Your task to perform on an android device: delete a single message in the gmail app Image 0: 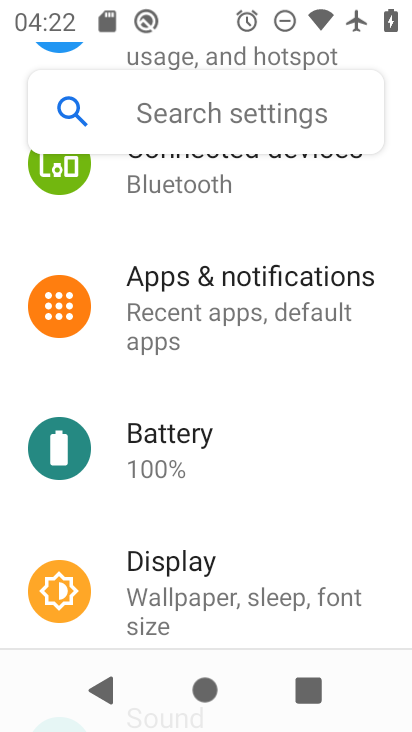
Step 0: press home button
Your task to perform on an android device: delete a single message in the gmail app Image 1: 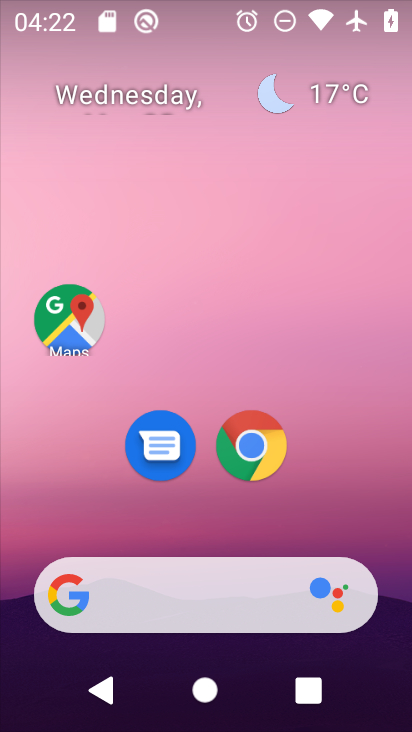
Step 1: drag from (172, 575) to (191, 242)
Your task to perform on an android device: delete a single message in the gmail app Image 2: 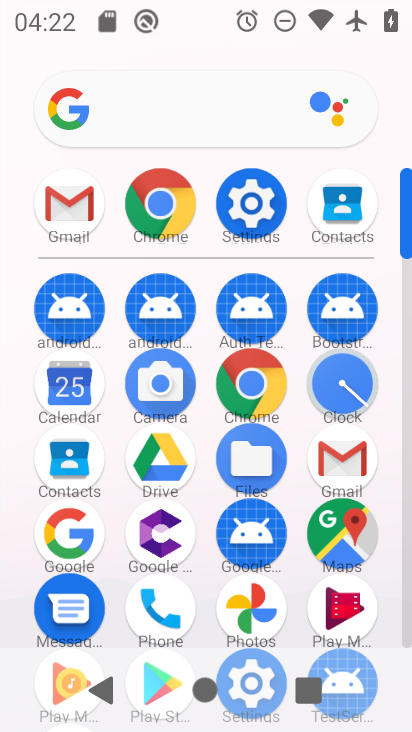
Step 2: click (62, 207)
Your task to perform on an android device: delete a single message in the gmail app Image 3: 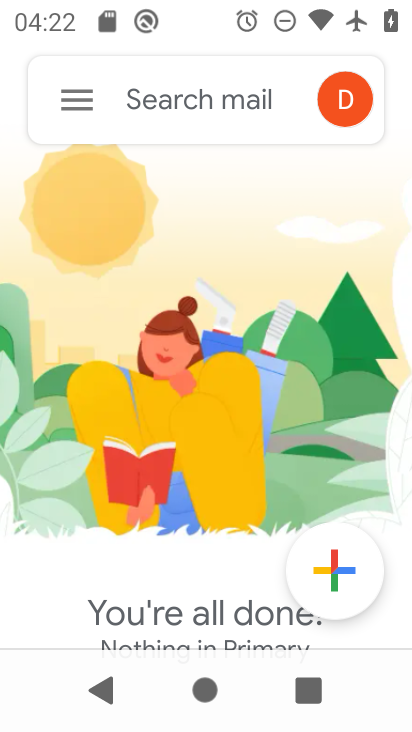
Step 3: click (79, 100)
Your task to perform on an android device: delete a single message in the gmail app Image 4: 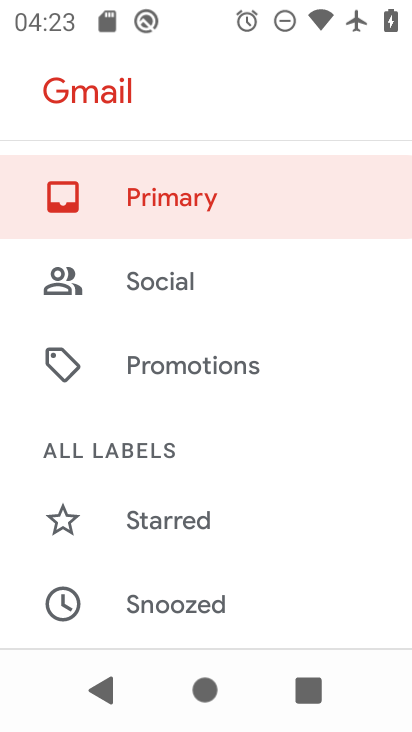
Step 4: drag from (157, 525) to (129, 194)
Your task to perform on an android device: delete a single message in the gmail app Image 5: 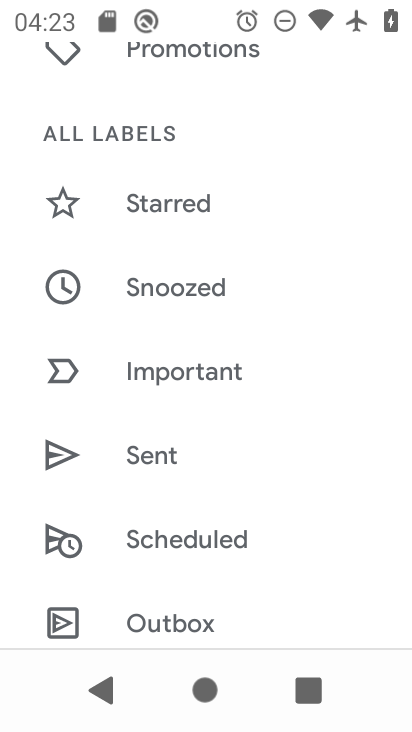
Step 5: drag from (146, 583) to (159, 199)
Your task to perform on an android device: delete a single message in the gmail app Image 6: 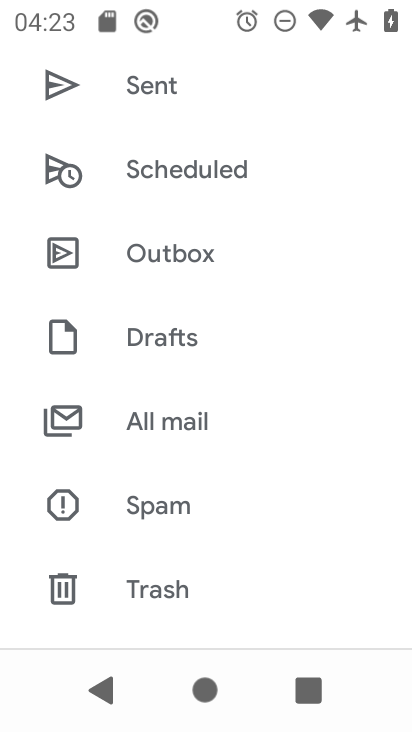
Step 6: click (187, 418)
Your task to perform on an android device: delete a single message in the gmail app Image 7: 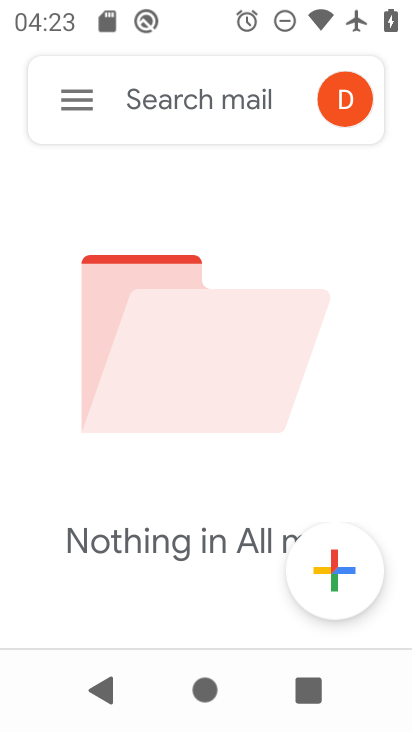
Step 7: task complete